Your task to perform on an android device: snooze an email in the gmail app Image 0: 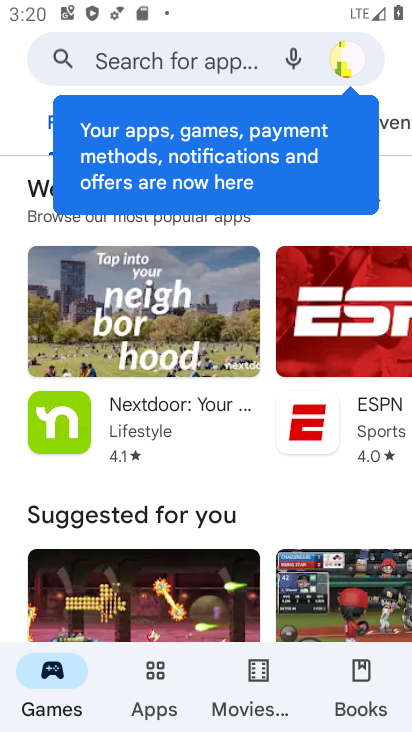
Step 0: press home button
Your task to perform on an android device: snooze an email in the gmail app Image 1: 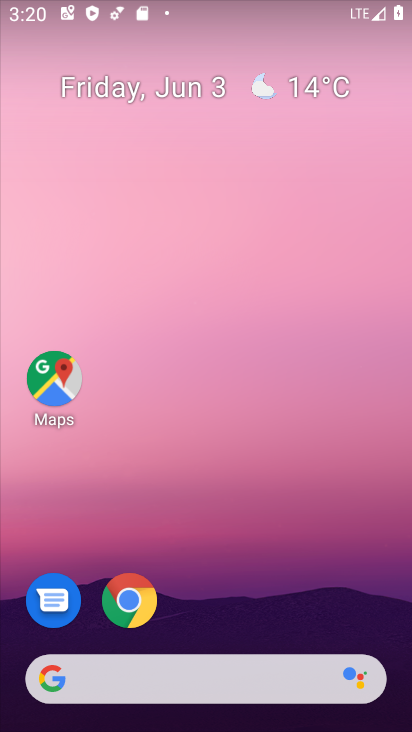
Step 1: drag from (307, 563) to (286, 188)
Your task to perform on an android device: snooze an email in the gmail app Image 2: 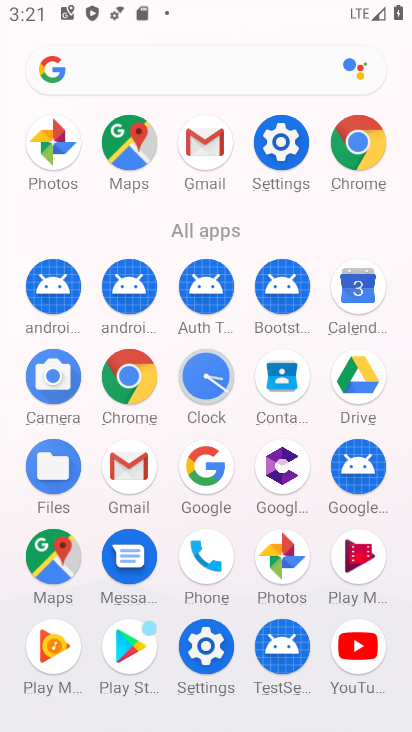
Step 2: click (128, 462)
Your task to perform on an android device: snooze an email in the gmail app Image 3: 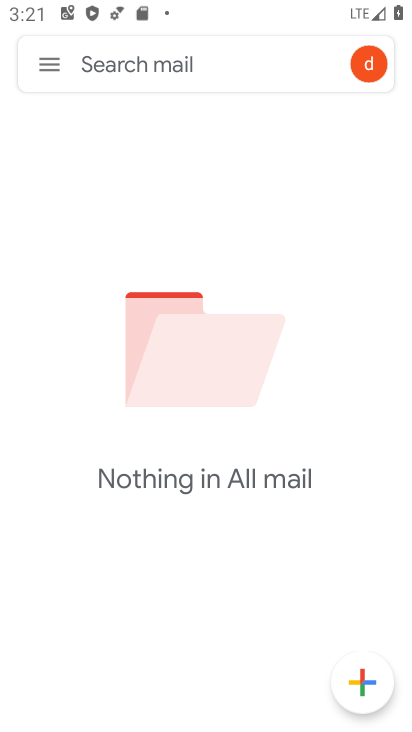
Step 3: click (56, 76)
Your task to perform on an android device: snooze an email in the gmail app Image 4: 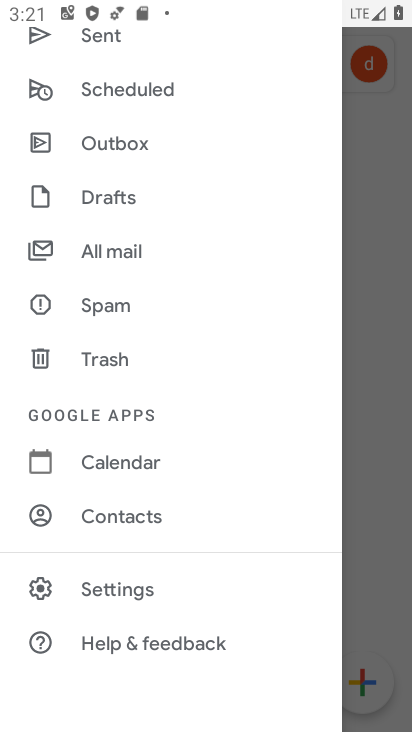
Step 4: click (140, 239)
Your task to perform on an android device: snooze an email in the gmail app Image 5: 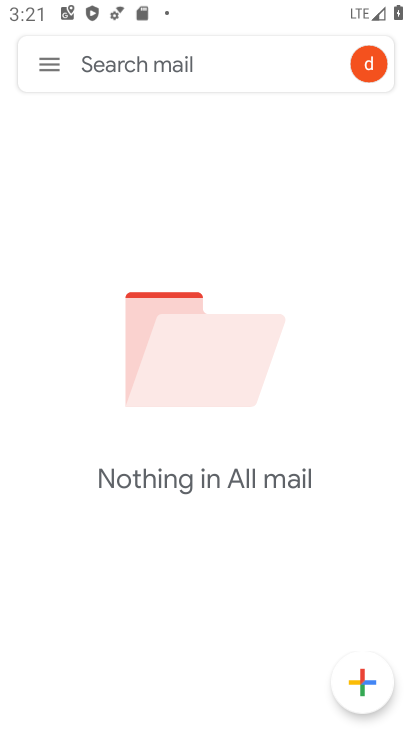
Step 5: task complete